Your task to perform on an android device: find which apps use the phone's location Image 0: 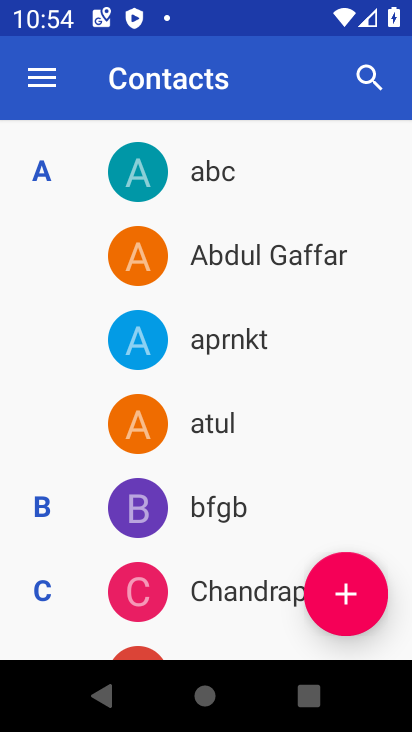
Step 0: press home button
Your task to perform on an android device: find which apps use the phone's location Image 1: 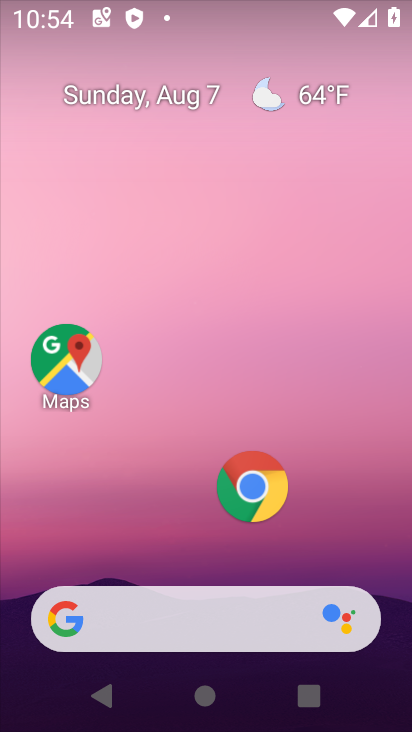
Step 1: drag from (246, 687) to (253, 271)
Your task to perform on an android device: find which apps use the phone's location Image 2: 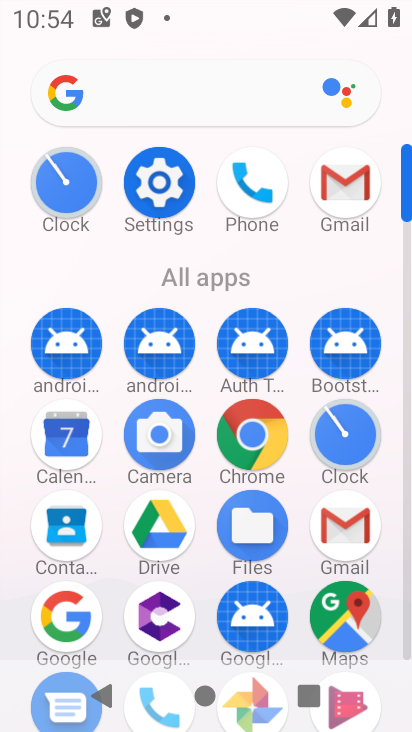
Step 2: drag from (209, 597) to (265, 150)
Your task to perform on an android device: find which apps use the phone's location Image 3: 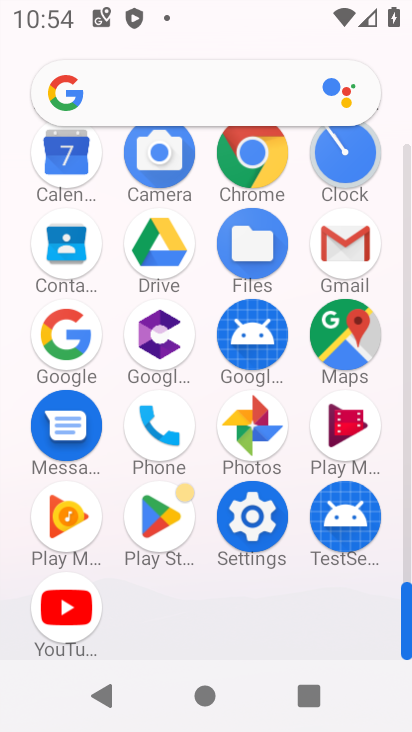
Step 3: click (138, 408)
Your task to perform on an android device: find which apps use the phone's location Image 4: 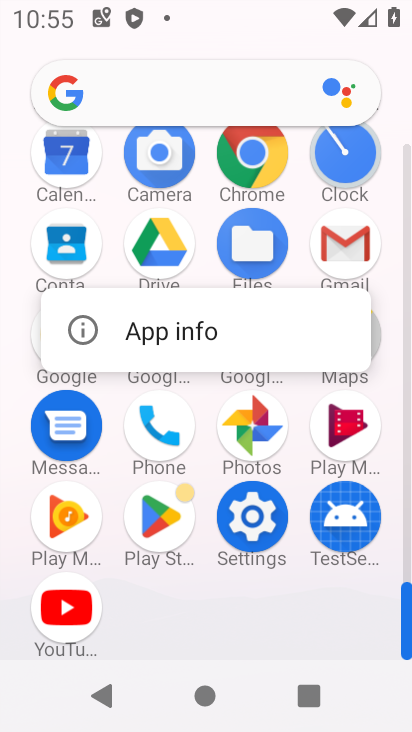
Step 4: click (229, 631)
Your task to perform on an android device: find which apps use the phone's location Image 5: 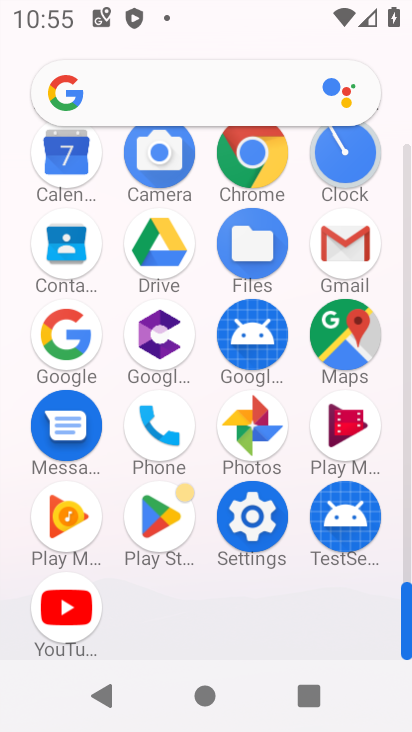
Step 5: click (251, 508)
Your task to perform on an android device: find which apps use the phone's location Image 6: 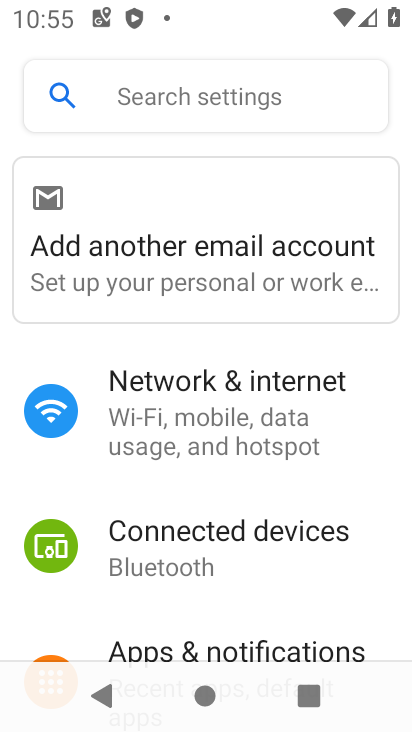
Step 6: drag from (199, 623) to (290, 112)
Your task to perform on an android device: find which apps use the phone's location Image 7: 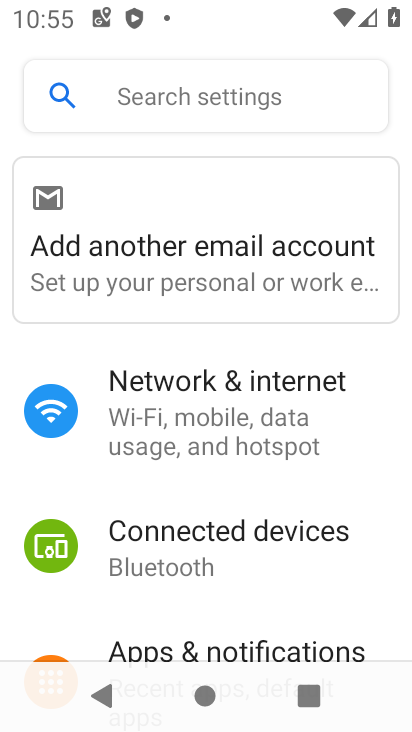
Step 7: drag from (241, 461) to (292, 43)
Your task to perform on an android device: find which apps use the phone's location Image 8: 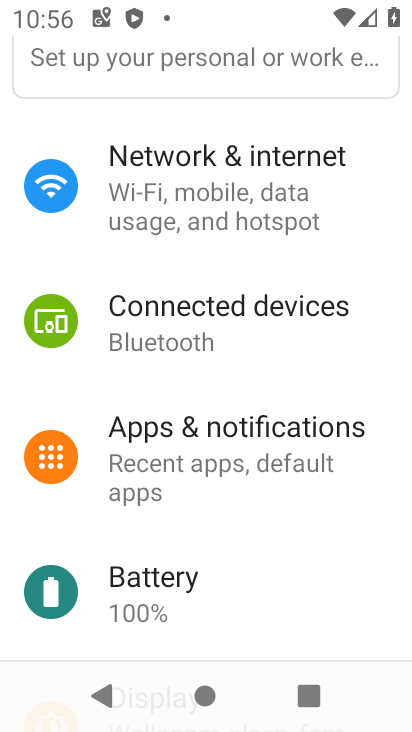
Step 8: drag from (319, 609) to (319, 62)
Your task to perform on an android device: find which apps use the phone's location Image 9: 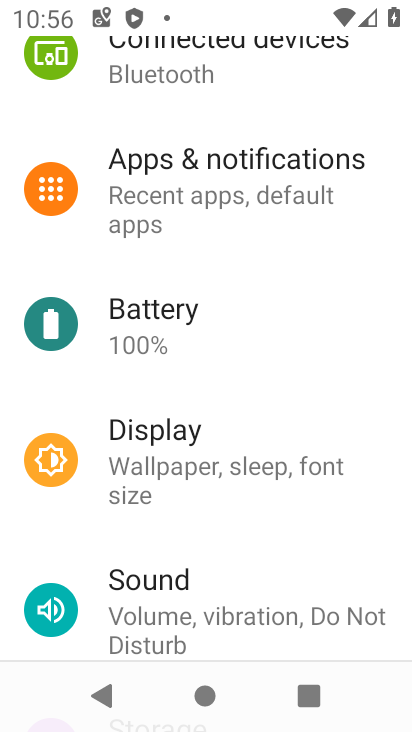
Step 9: drag from (257, 620) to (325, 95)
Your task to perform on an android device: find which apps use the phone's location Image 10: 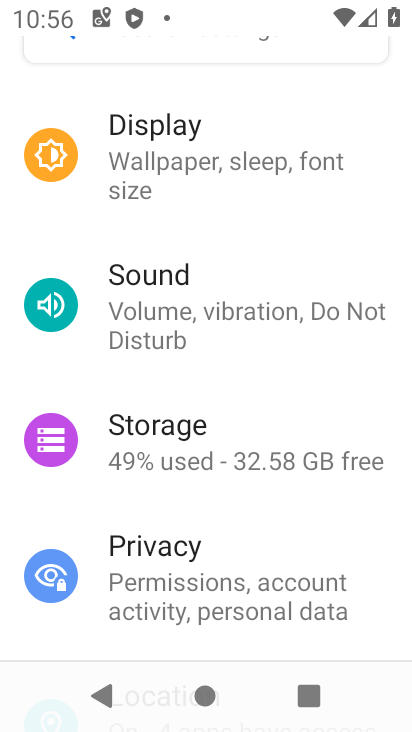
Step 10: drag from (230, 463) to (275, 56)
Your task to perform on an android device: find which apps use the phone's location Image 11: 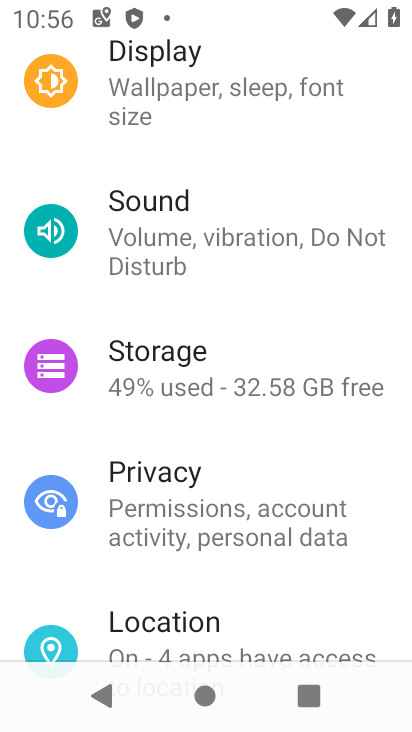
Step 11: click (185, 629)
Your task to perform on an android device: find which apps use the phone's location Image 12: 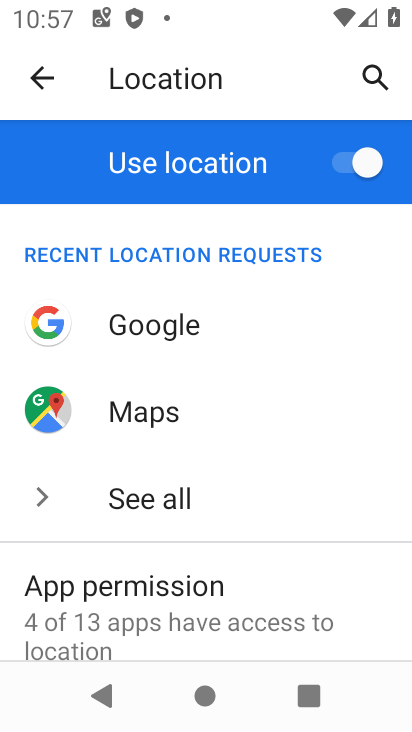
Step 12: click (123, 480)
Your task to perform on an android device: find which apps use the phone's location Image 13: 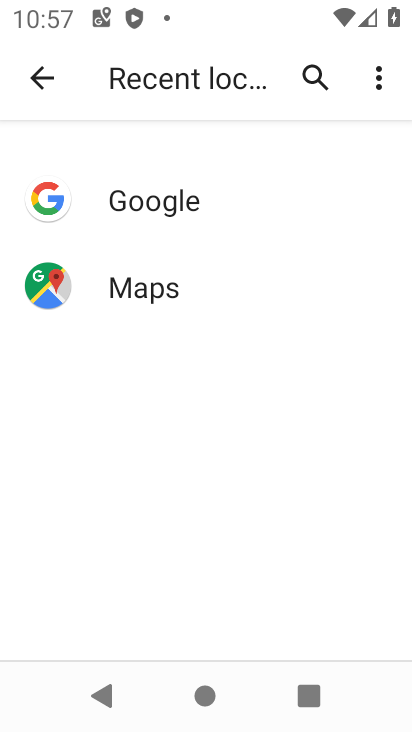
Step 13: task complete